Your task to perform on an android device: open device folders in google photos Image 0: 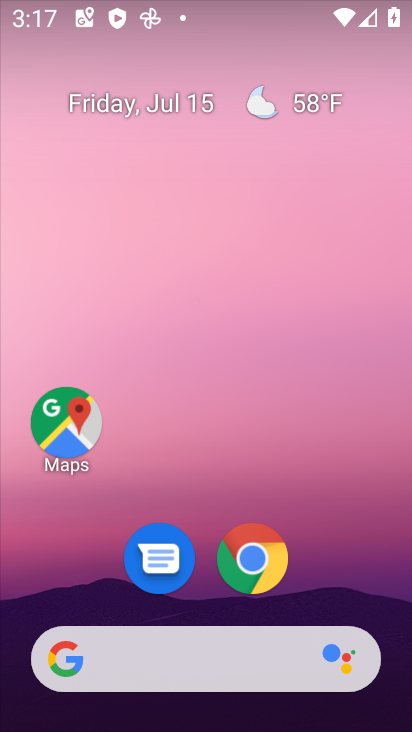
Step 0: drag from (366, 580) to (353, 127)
Your task to perform on an android device: open device folders in google photos Image 1: 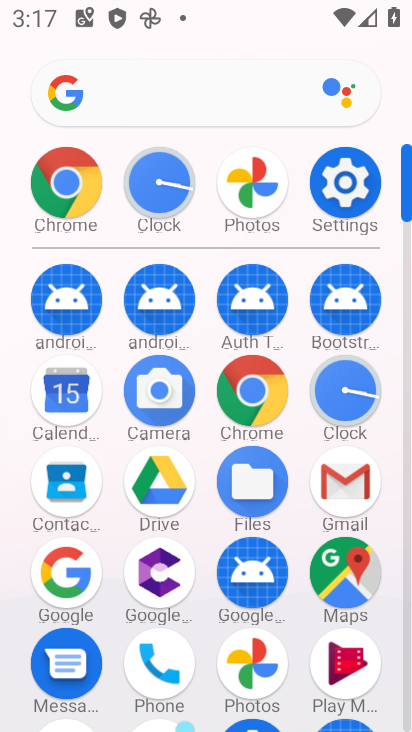
Step 1: click (268, 191)
Your task to perform on an android device: open device folders in google photos Image 2: 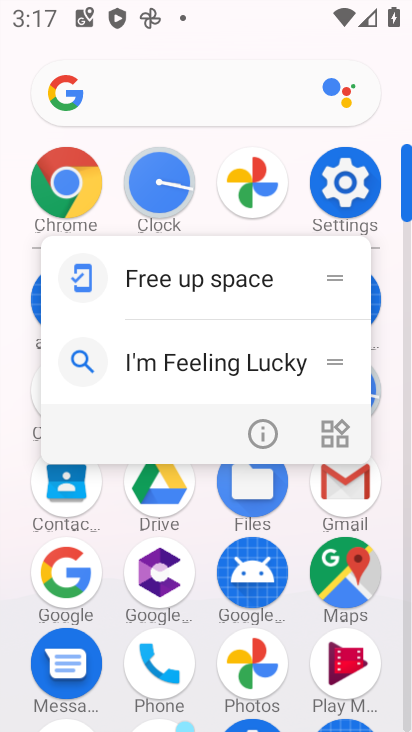
Step 2: click (268, 191)
Your task to perform on an android device: open device folders in google photos Image 3: 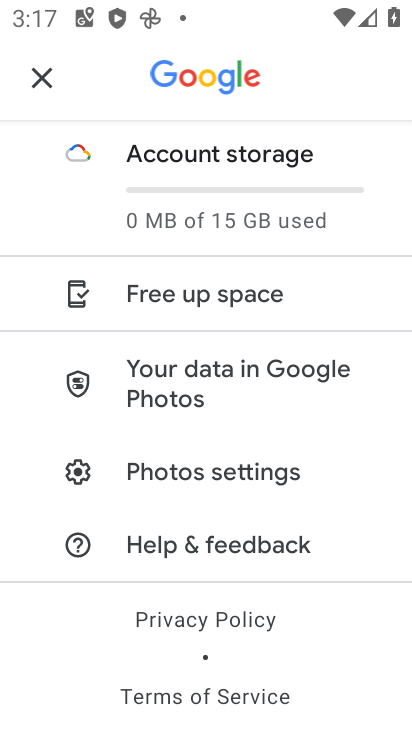
Step 3: task complete